Your task to perform on an android device: find which apps use the phone's location Image 0: 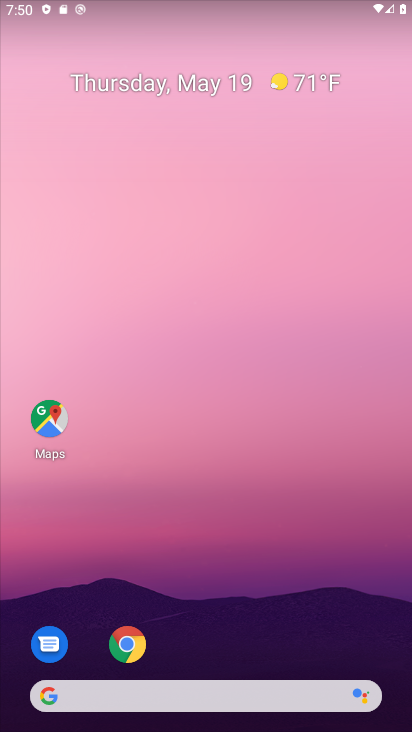
Step 0: press home button
Your task to perform on an android device: find which apps use the phone's location Image 1: 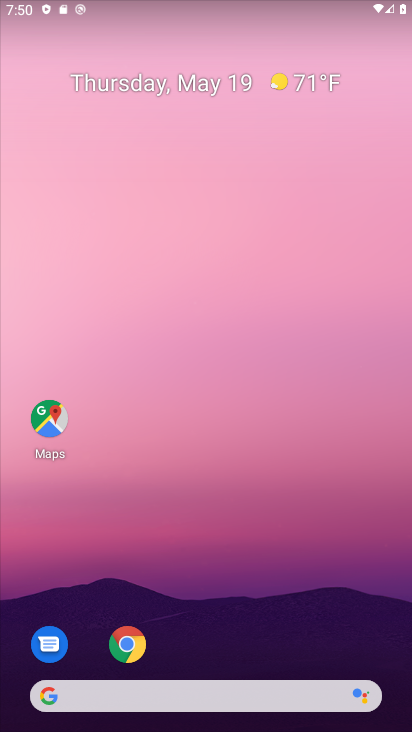
Step 1: drag from (307, 710) to (244, 303)
Your task to perform on an android device: find which apps use the phone's location Image 2: 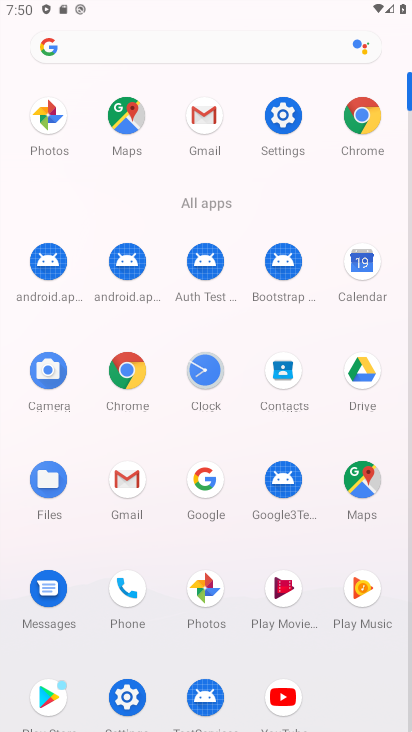
Step 2: click (132, 687)
Your task to perform on an android device: find which apps use the phone's location Image 3: 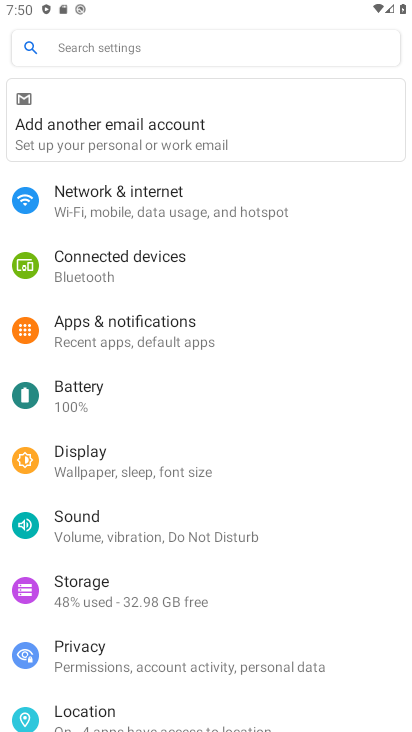
Step 3: click (156, 60)
Your task to perform on an android device: find which apps use the phone's location Image 4: 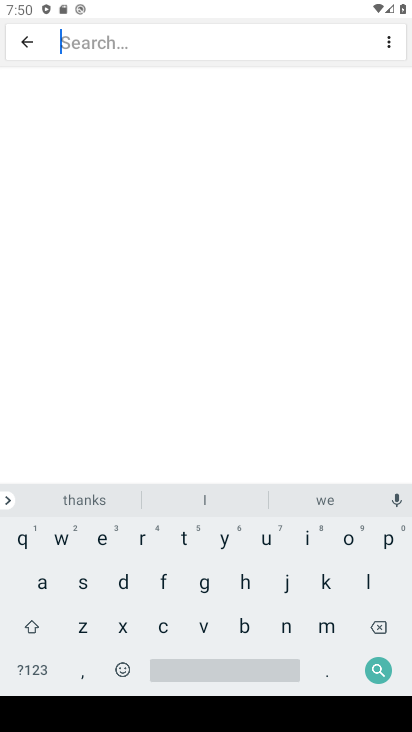
Step 4: click (363, 581)
Your task to perform on an android device: find which apps use the phone's location Image 5: 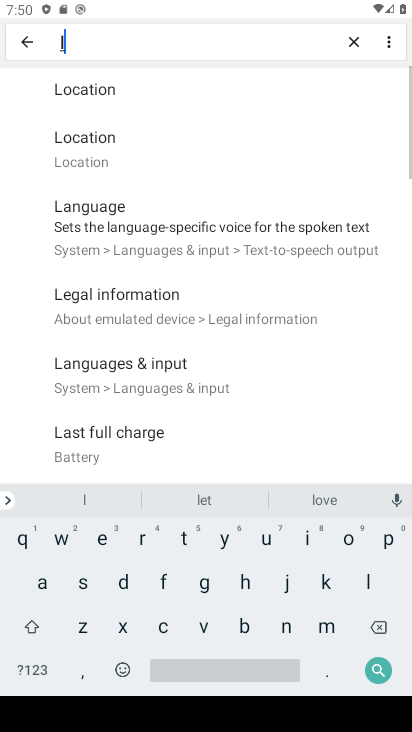
Step 5: click (347, 544)
Your task to perform on an android device: find which apps use the phone's location Image 6: 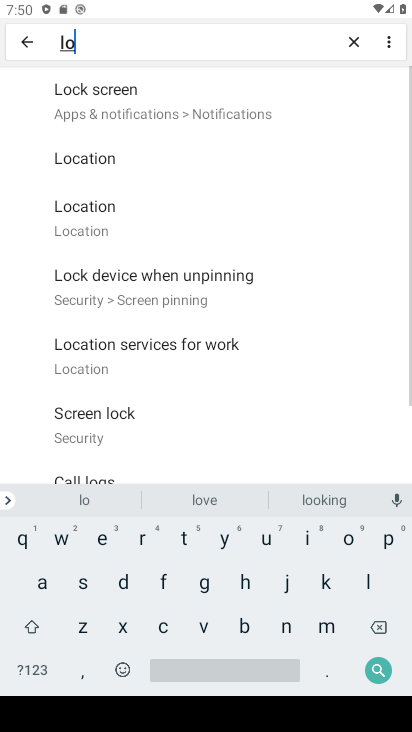
Step 6: click (96, 207)
Your task to perform on an android device: find which apps use the phone's location Image 7: 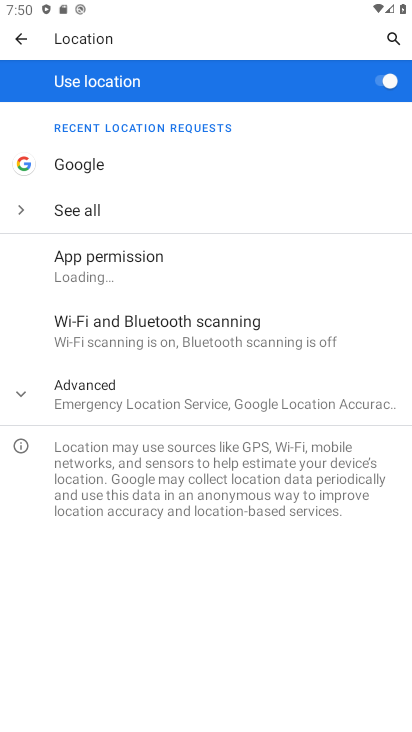
Step 7: task complete